Your task to perform on an android device: add a label to a message in the gmail app Image 0: 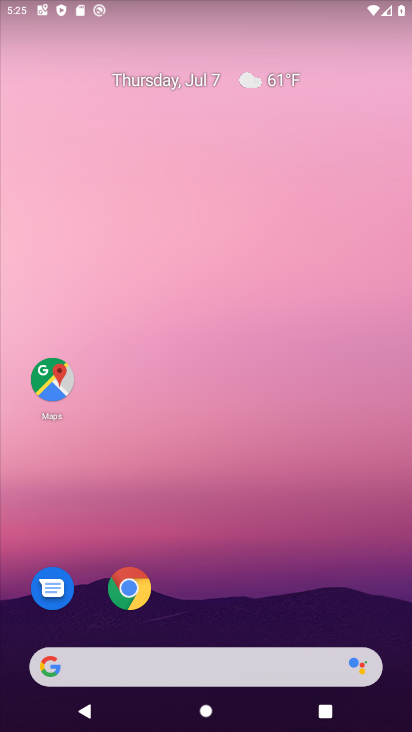
Step 0: drag from (291, 558) to (300, 86)
Your task to perform on an android device: add a label to a message in the gmail app Image 1: 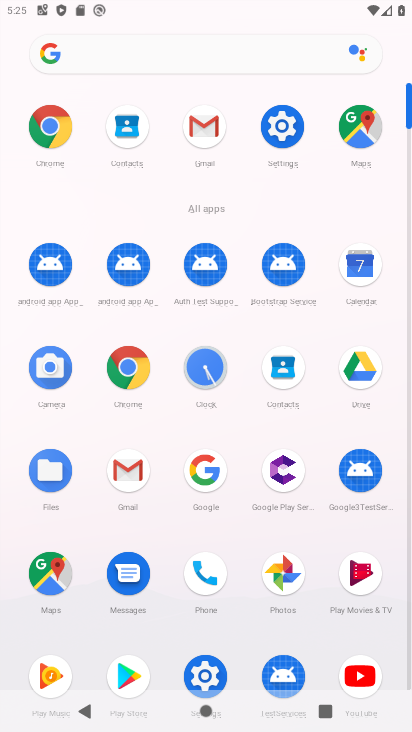
Step 1: click (232, 119)
Your task to perform on an android device: add a label to a message in the gmail app Image 2: 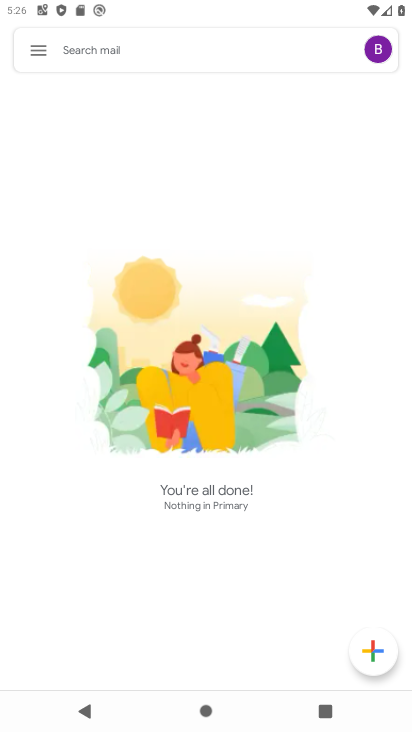
Step 2: click (43, 44)
Your task to perform on an android device: add a label to a message in the gmail app Image 3: 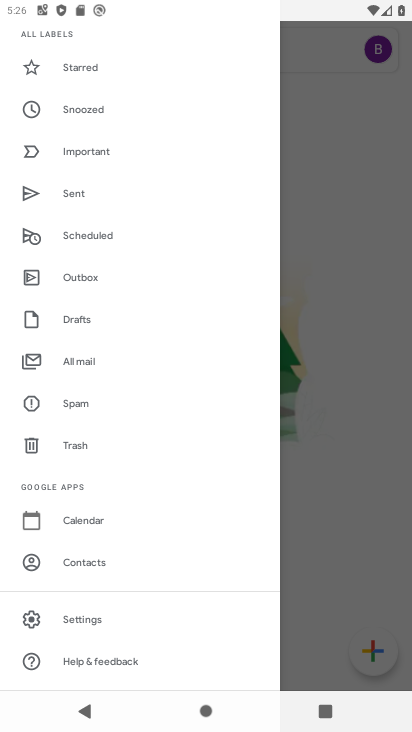
Step 3: click (103, 360)
Your task to perform on an android device: add a label to a message in the gmail app Image 4: 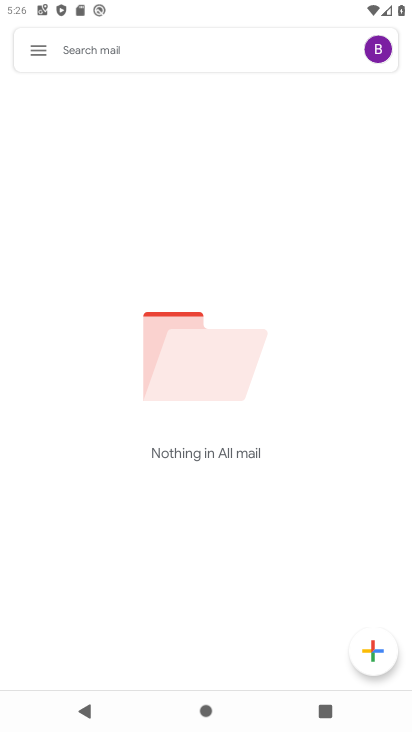
Step 4: task complete